Your task to perform on an android device: add a label to a message in the gmail app Image 0: 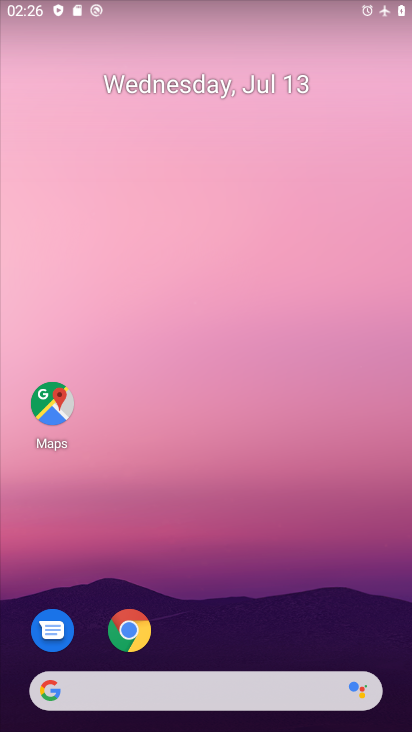
Step 0: drag from (219, 652) to (186, 201)
Your task to perform on an android device: add a label to a message in the gmail app Image 1: 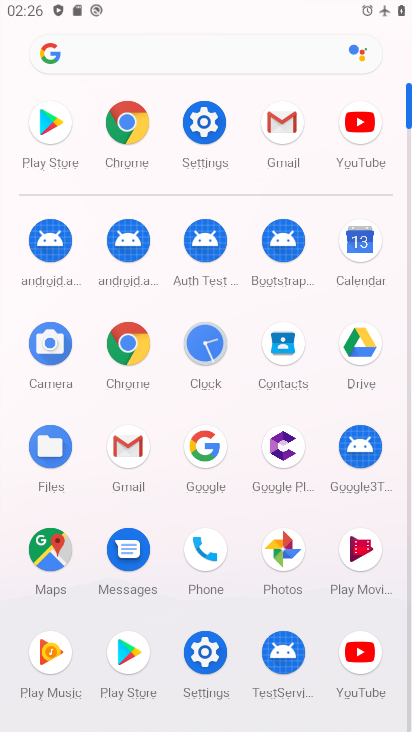
Step 1: click (266, 150)
Your task to perform on an android device: add a label to a message in the gmail app Image 2: 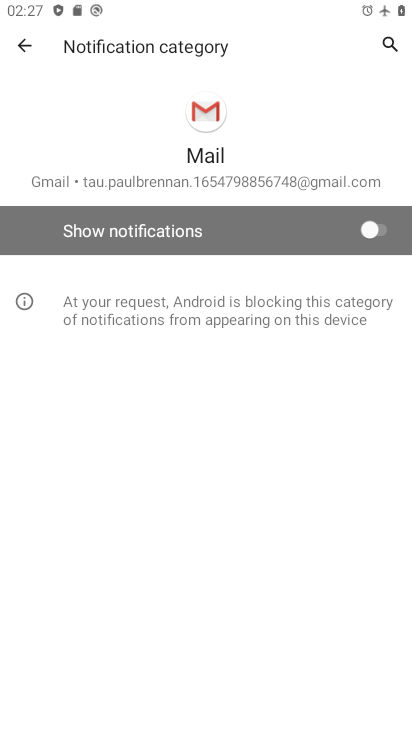
Step 2: click (17, 43)
Your task to perform on an android device: add a label to a message in the gmail app Image 3: 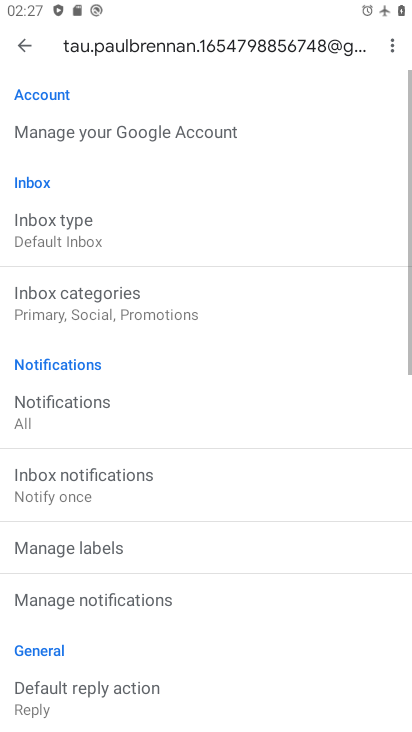
Step 3: click (17, 43)
Your task to perform on an android device: add a label to a message in the gmail app Image 4: 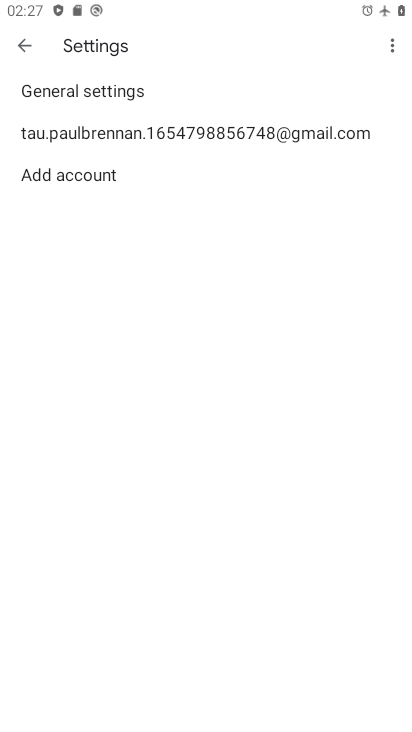
Step 4: click (135, 149)
Your task to perform on an android device: add a label to a message in the gmail app Image 5: 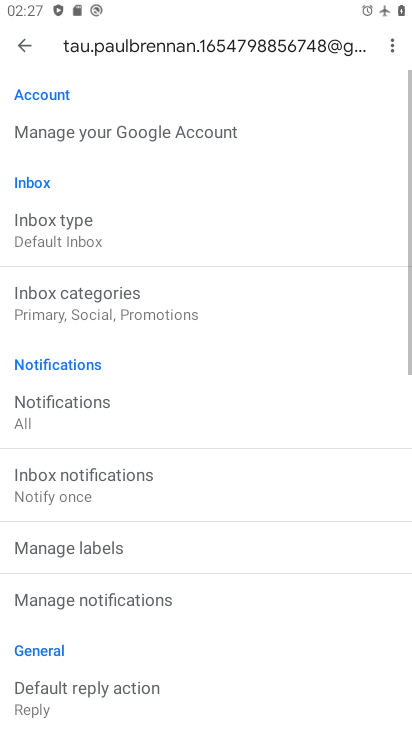
Step 5: click (33, 54)
Your task to perform on an android device: add a label to a message in the gmail app Image 6: 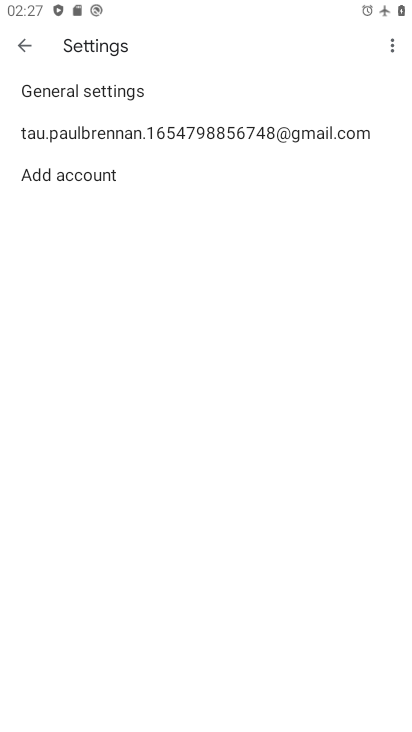
Step 6: click (33, 54)
Your task to perform on an android device: add a label to a message in the gmail app Image 7: 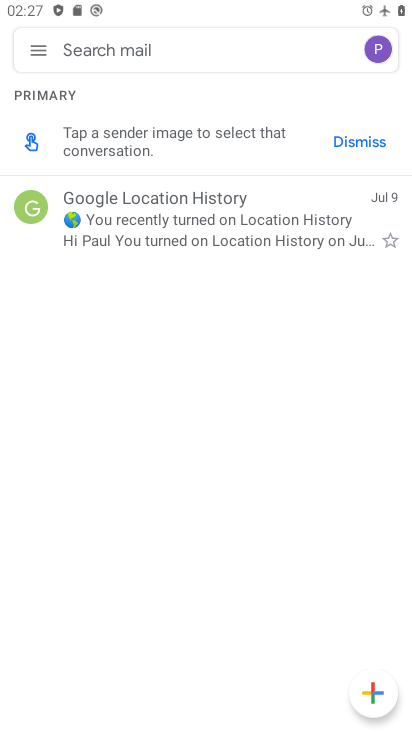
Step 7: click (238, 220)
Your task to perform on an android device: add a label to a message in the gmail app Image 8: 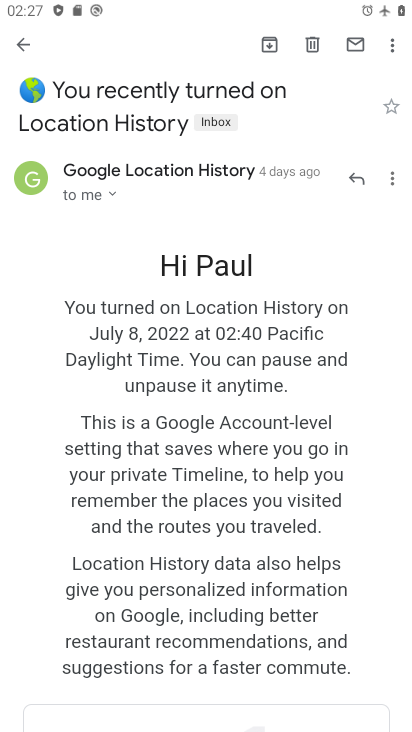
Step 8: click (389, 44)
Your task to perform on an android device: add a label to a message in the gmail app Image 9: 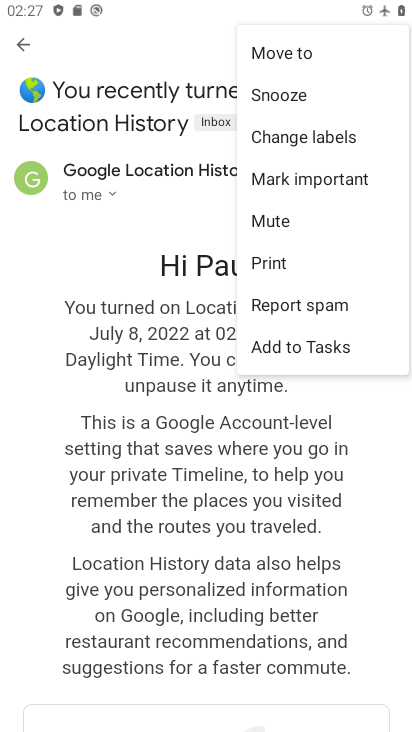
Step 9: click (286, 55)
Your task to perform on an android device: add a label to a message in the gmail app Image 10: 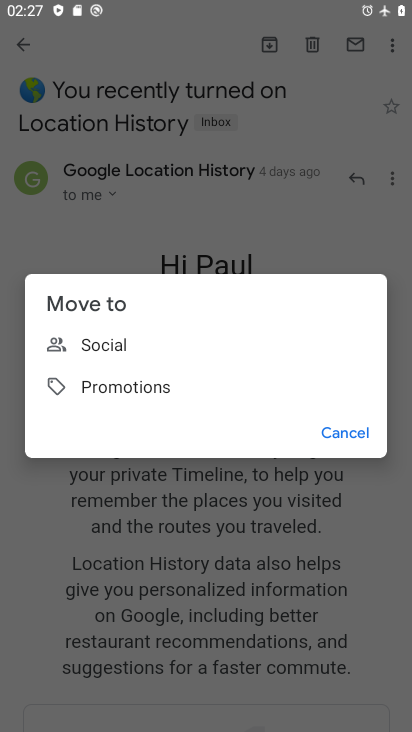
Step 10: click (145, 355)
Your task to perform on an android device: add a label to a message in the gmail app Image 11: 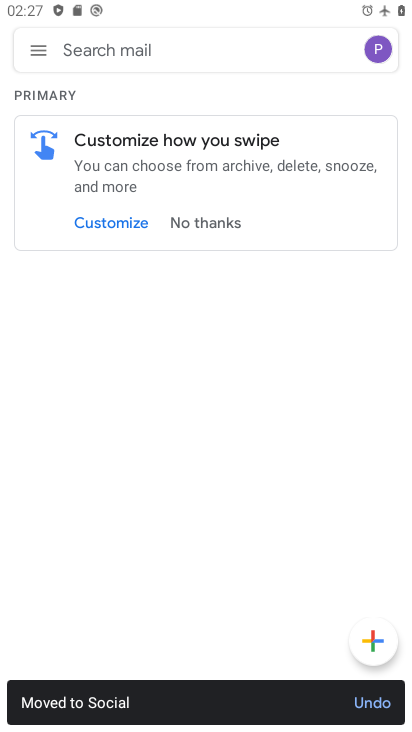
Step 11: task complete